Your task to perform on an android device: turn vacation reply on in the gmail app Image 0: 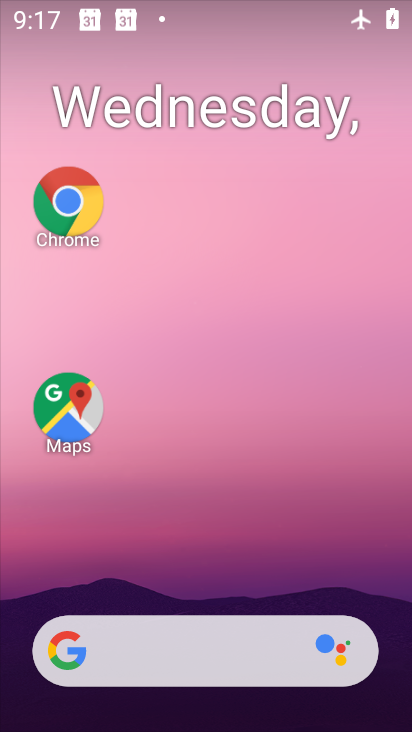
Step 0: drag from (215, 593) to (188, 4)
Your task to perform on an android device: turn vacation reply on in the gmail app Image 1: 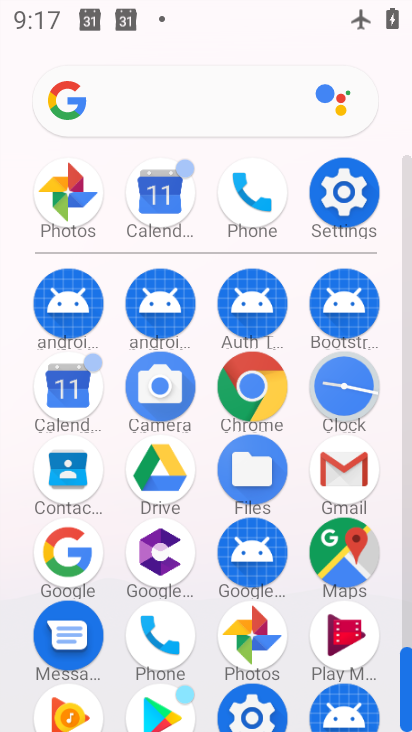
Step 1: click (339, 457)
Your task to perform on an android device: turn vacation reply on in the gmail app Image 2: 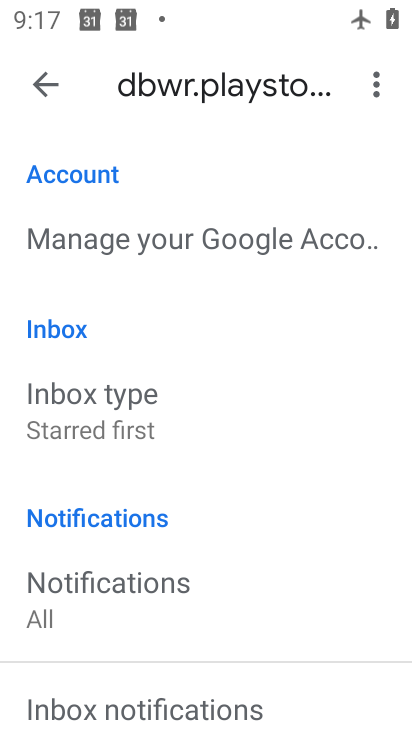
Step 2: click (251, 494)
Your task to perform on an android device: turn vacation reply on in the gmail app Image 3: 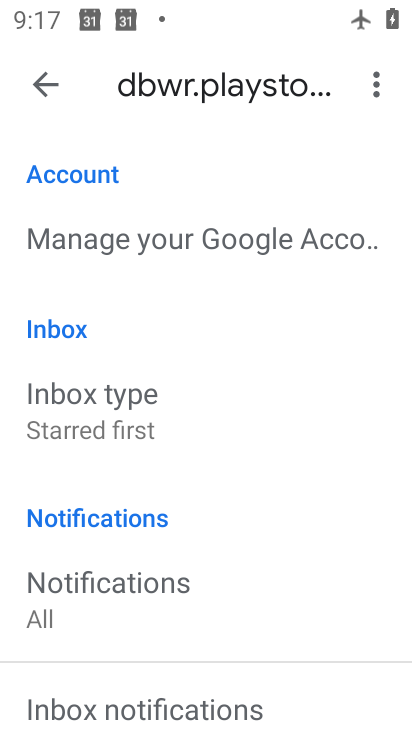
Step 3: drag from (251, 494) to (213, 26)
Your task to perform on an android device: turn vacation reply on in the gmail app Image 4: 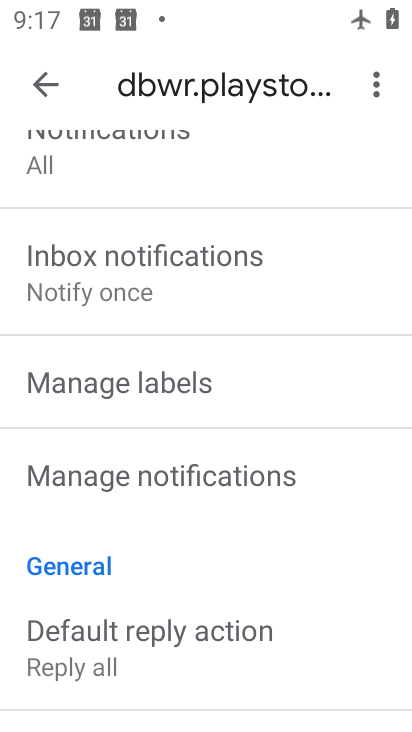
Step 4: drag from (84, 556) to (30, 10)
Your task to perform on an android device: turn vacation reply on in the gmail app Image 5: 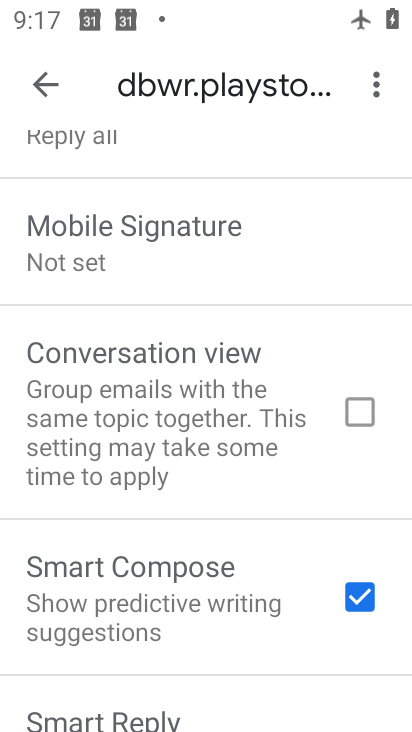
Step 5: drag from (122, 509) to (146, 160)
Your task to perform on an android device: turn vacation reply on in the gmail app Image 6: 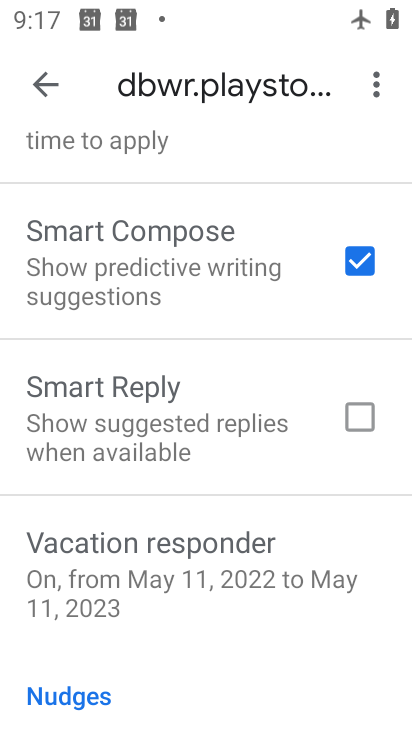
Step 6: click (215, 554)
Your task to perform on an android device: turn vacation reply on in the gmail app Image 7: 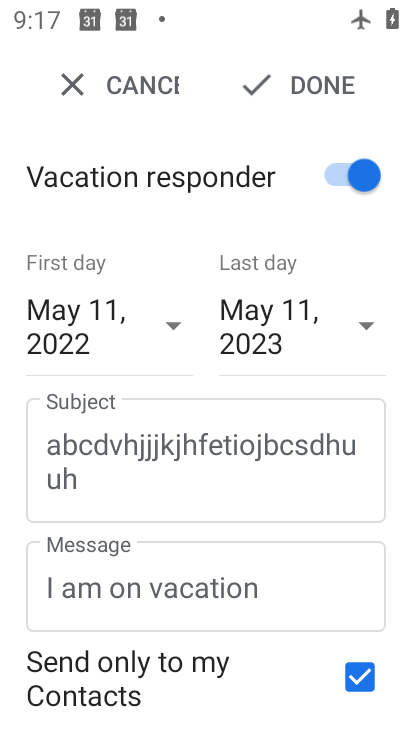
Step 7: click (300, 76)
Your task to perform on an android device: turn vacation reply on in the gmail app Image 8: 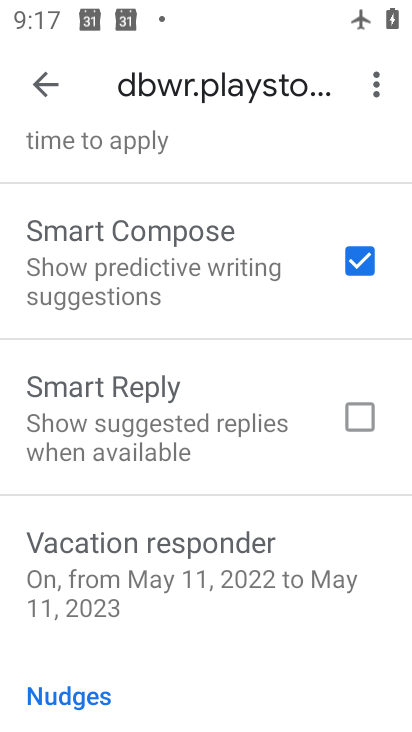
Step 8: task complete